Your task to perform on an android device: toggle improve location accuracy Image 0: 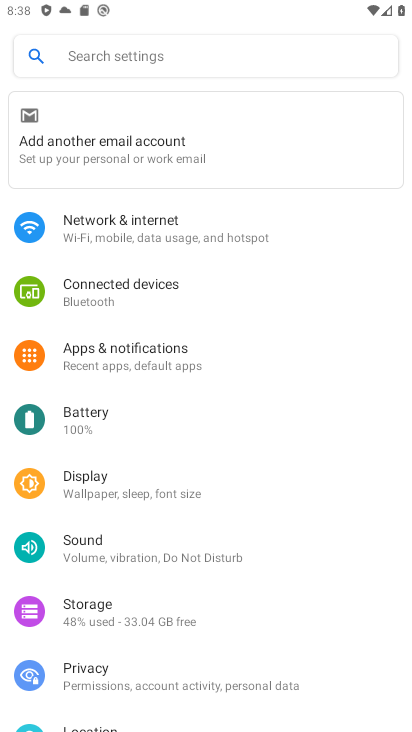
Step 0: press home button
Your task to perform on an android device: toggle improve location accuracy Image 1: 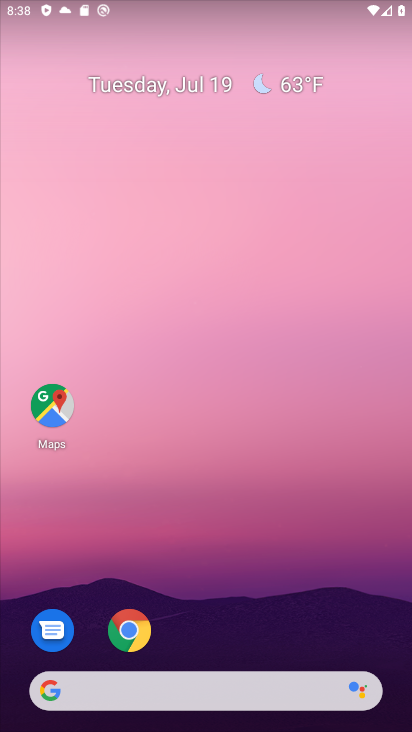
Step 1: drag from (196, 690) to (257, 169)
Your task to perform on an android device: toggle improve location accuracy Image 2: 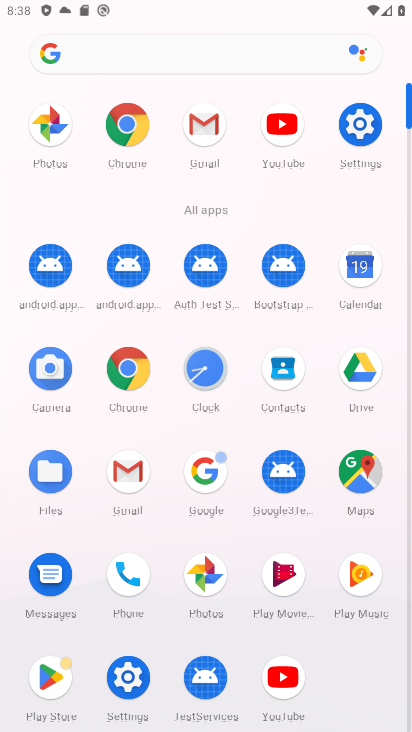
Step 2: click (360, 124)
Your task to perform on an android device: toggle improve location accuracy Image 3: 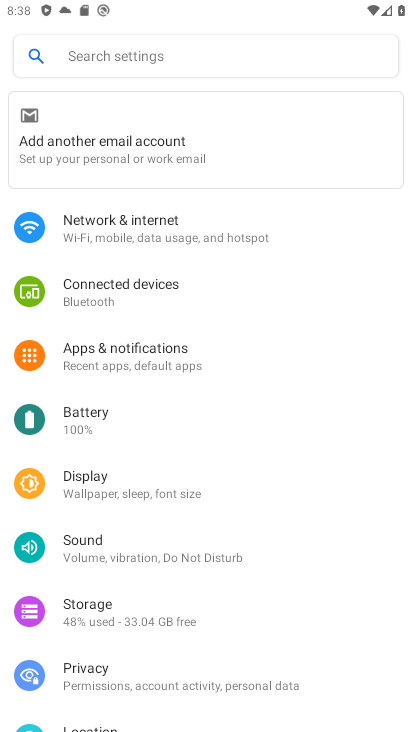
Step 3: drag from (118, 512) to (161, 398)
Your task to perform on an android device: toggle improve location accuracy Image 4: 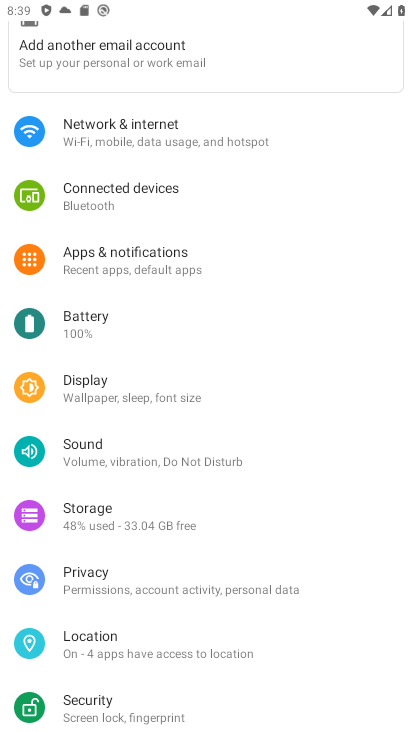
Step 4: drag from (136, 564) to (179, 434)
Your task to perform on an android device: toggle improve location accuracy Image 5: 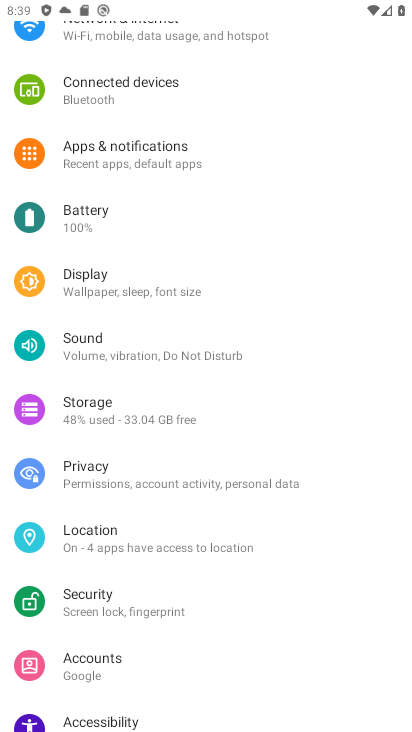
Step 5: drag from (163, 572) to (216, 477)
Your task to perform on an android device: toggle improve location accuracy Image 6: 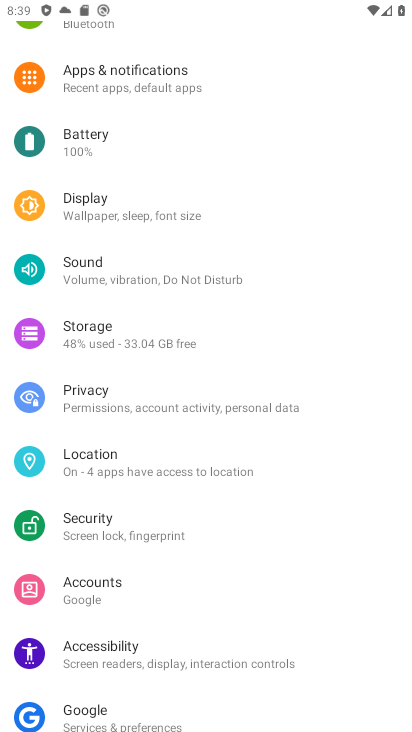
Step 6: click (105, 472)
Your task to perform on an android device: toggle improve location accuracy Image 7: 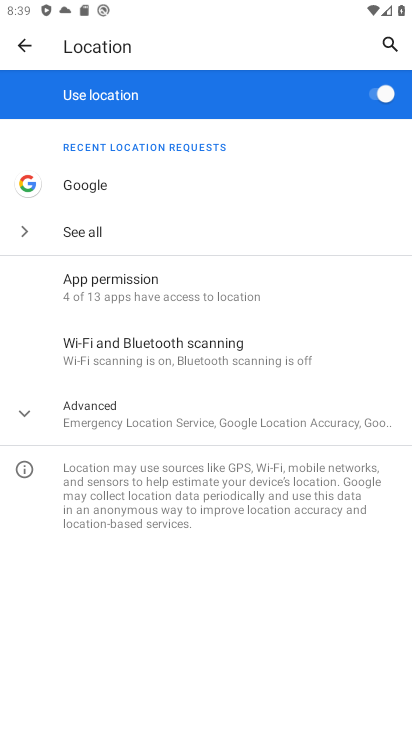
Step 7: click (152, 419)
Your task to perform on an android device: toggle improve location accuracy Image 8: 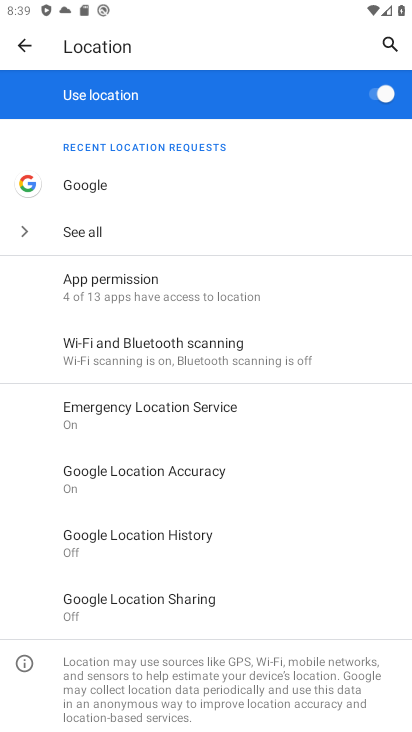
Step 8: click (151, 474)
Your task to perform on an android device: toggle improve location accuracy Image 9: 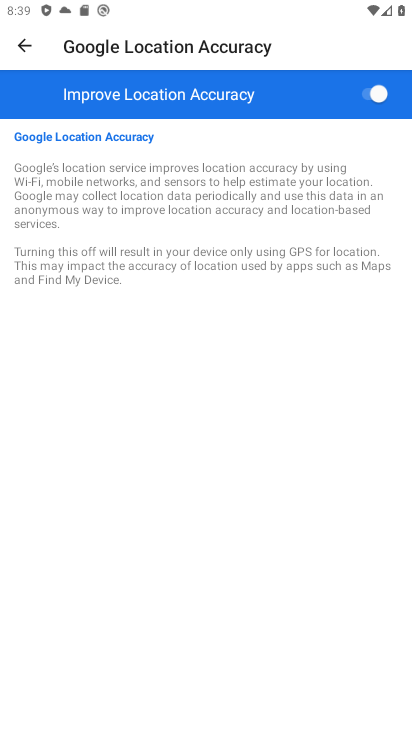
Step 9: click (367, 98)
Your task to perform on an android device: toggle improve location accuracy Image 10: 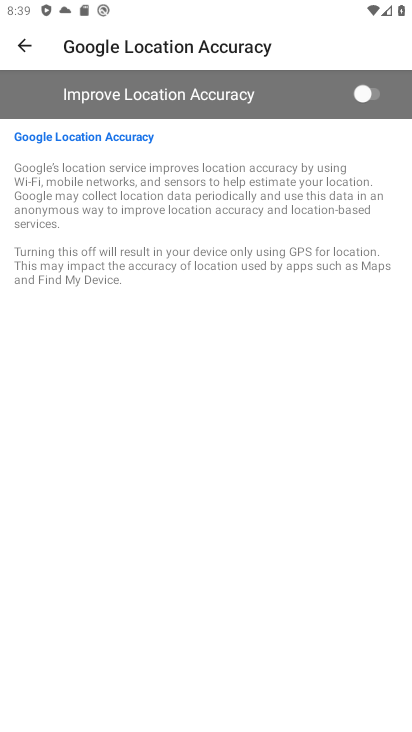
Step 10: task complete